Your task to perform on an android device: Do I have any events this weekend? Image 0: 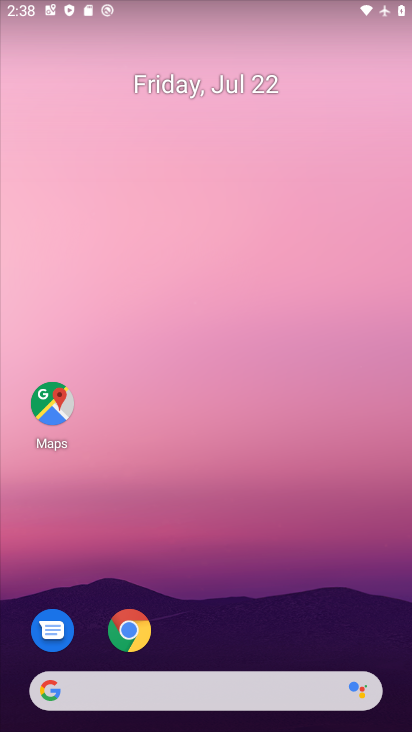
Step 0: drag from (212, 667) to (232, 27)
Your task to perform on an android device: Do I have any events this weekend? Image 1: 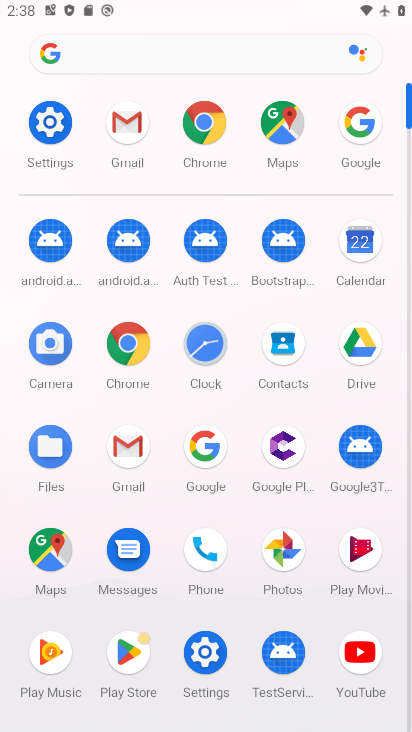
Step 1: click (369, 242)
Your task to perform on an android device: Do I have any events this weekend? Image 2: 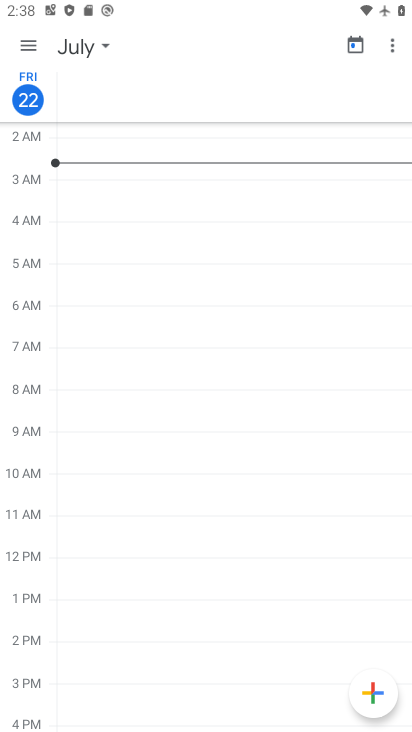
Step 2: click (31, 49)
Your task to perform on an android device: Do I have any events this weekend? Image 3: 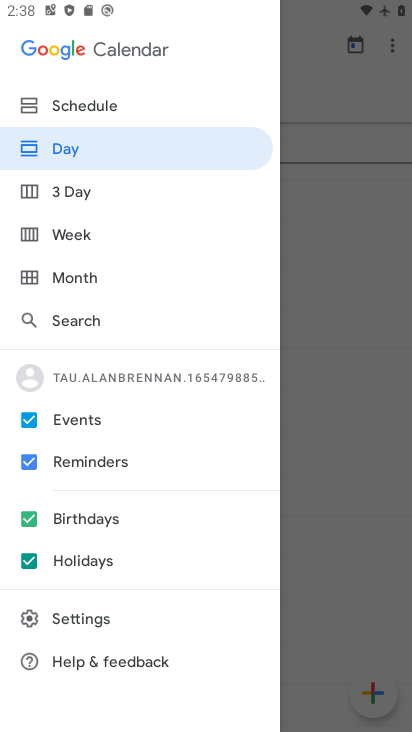
Step 3: click (70, 239)
Your task to perform on an android device: Do I have any events this weekend? Image 4: 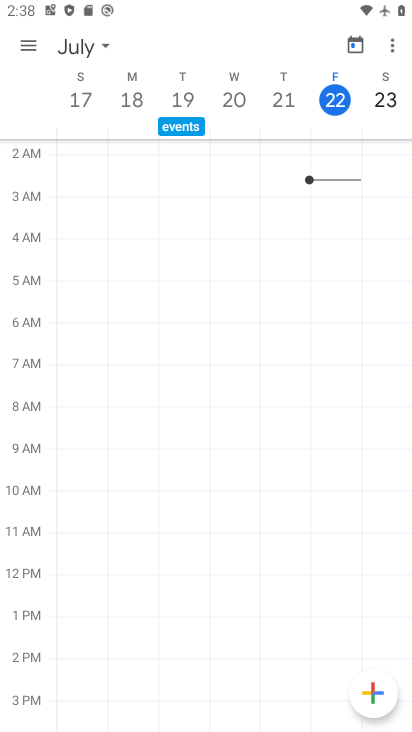
Step 4: task complete